Your task to perform on an android device: Google the capital of Mexico Image 0: 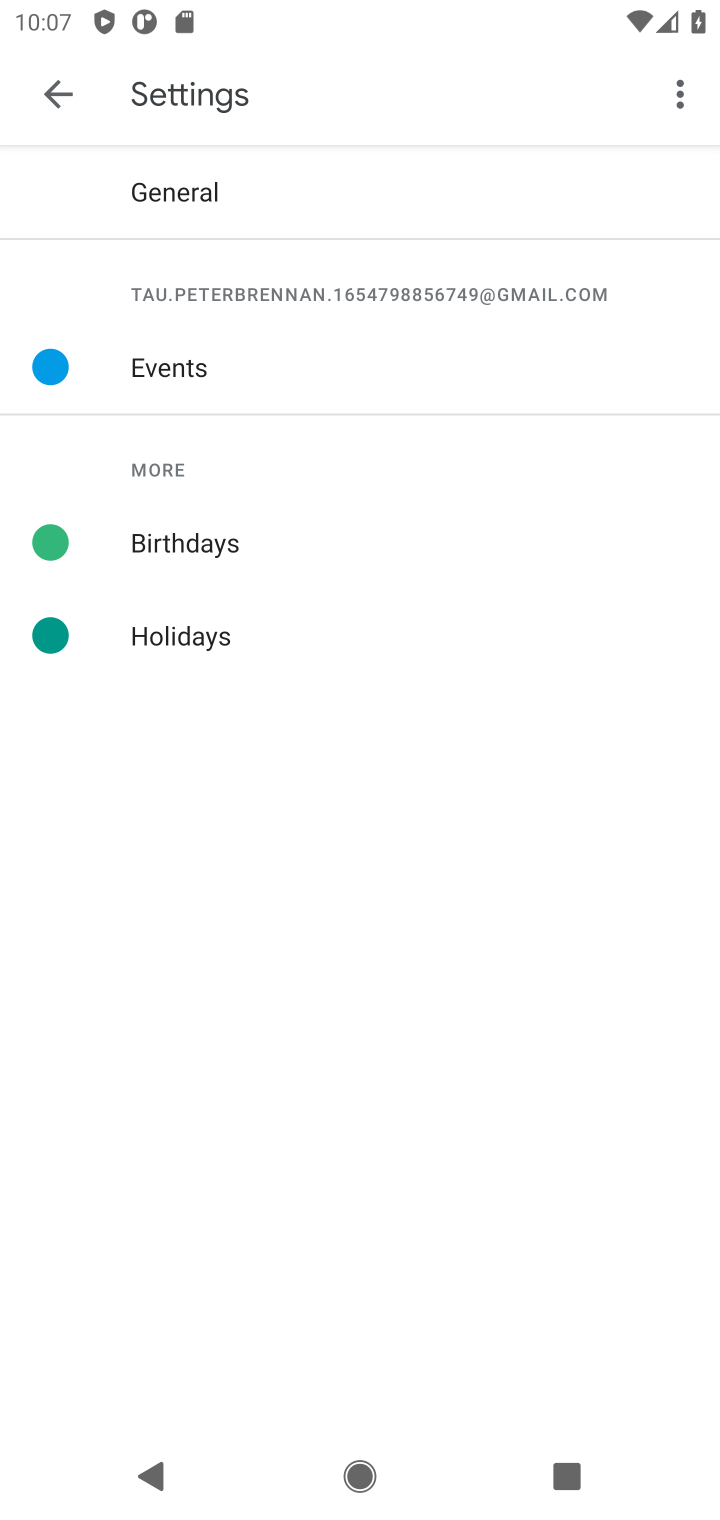
Step 0: press home button
Your task to perform on an android device: Google the capital of Mexico Image 1: 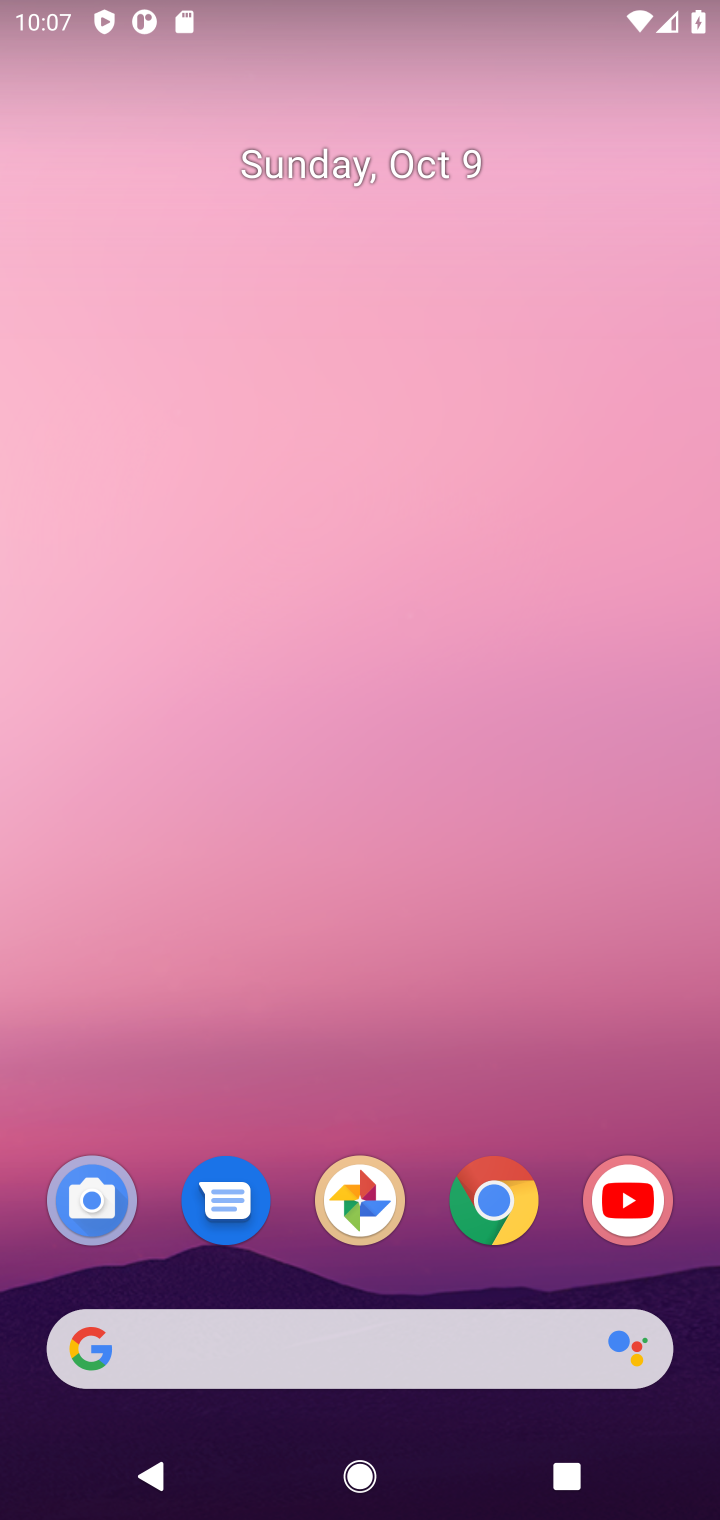
Step 1: click (506, 1180)
Your task to perform on an android device: Google the capital of Mexico Image 2: 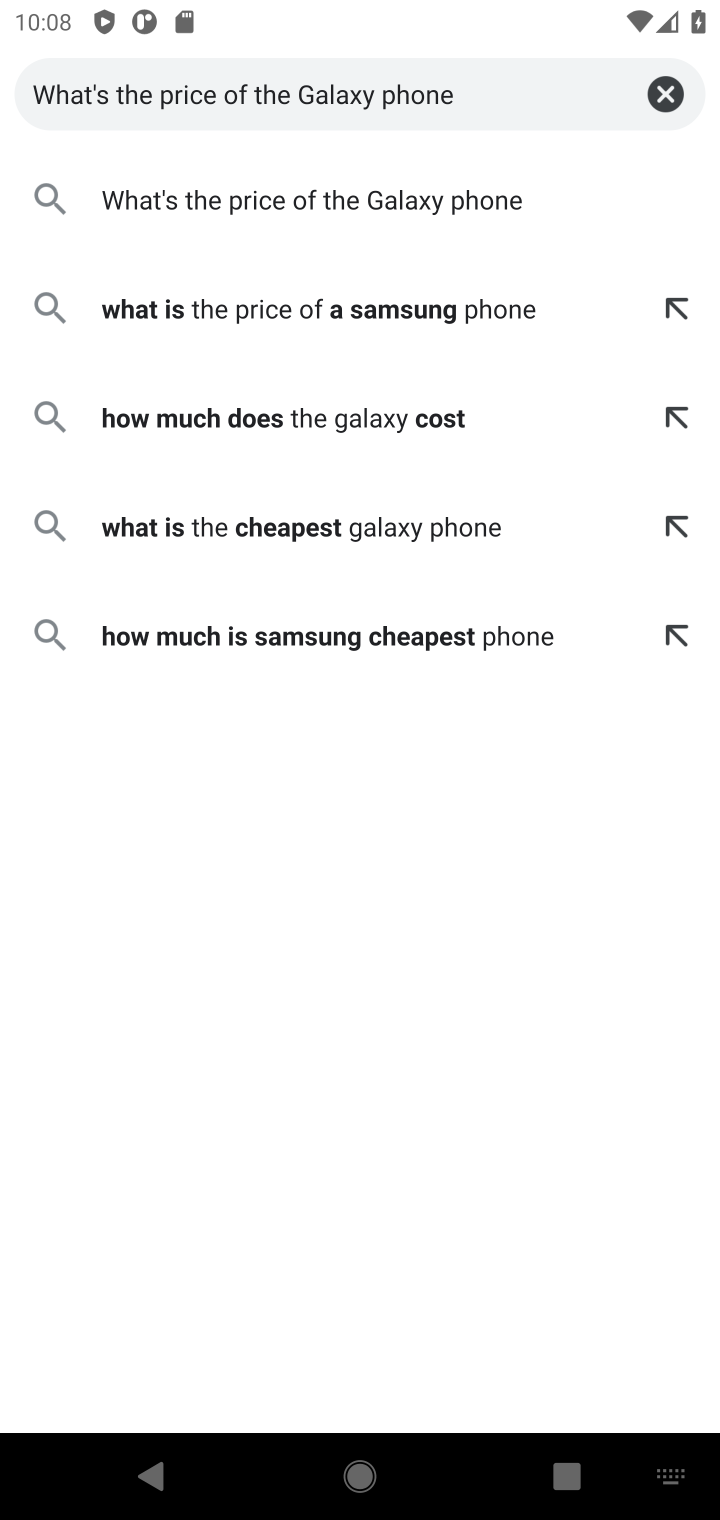
Step 2: click (655, 88)
Your task to perform on an android device: Google the capital of Mexico Image 3: 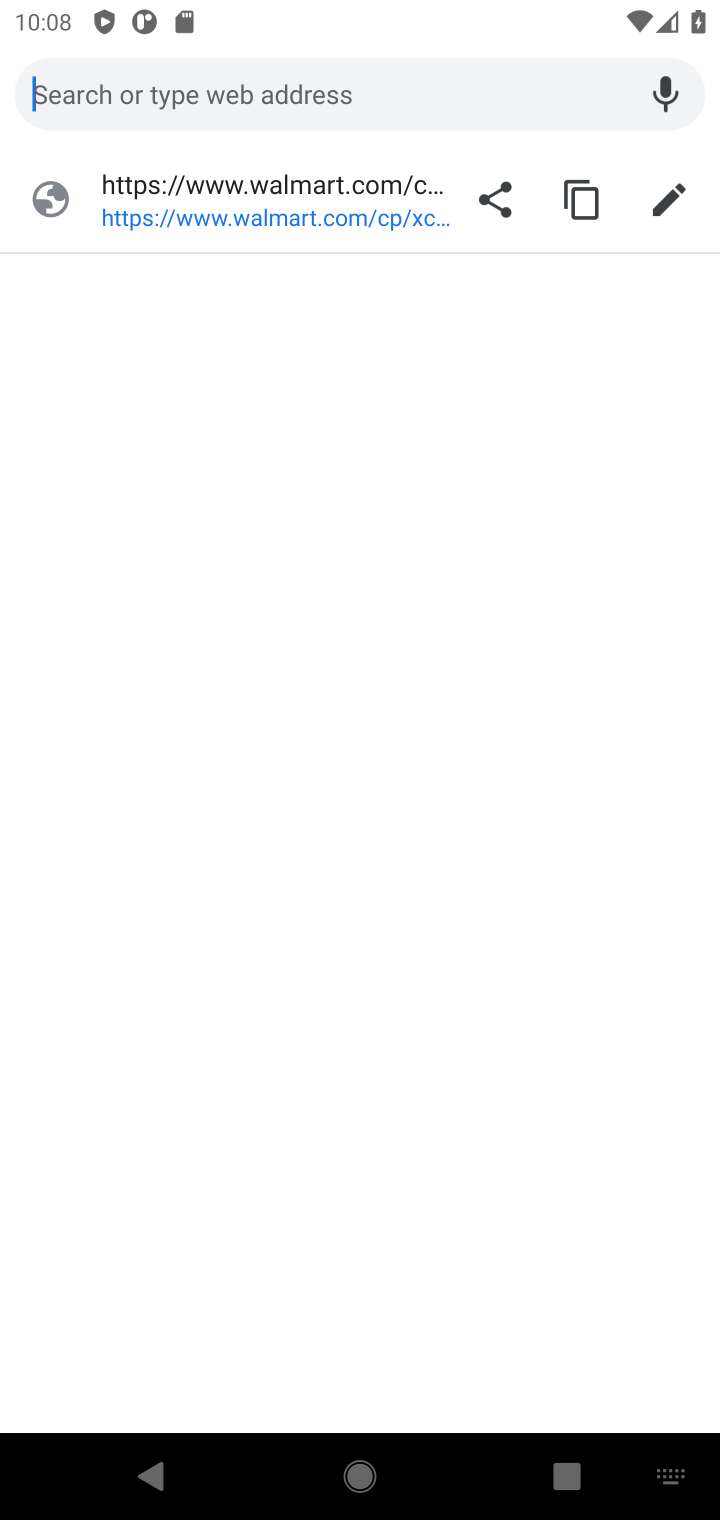
Step 3: type "google capital od mexico"
Your task to perform on an android device: Google the capital of Mexico Image 4: 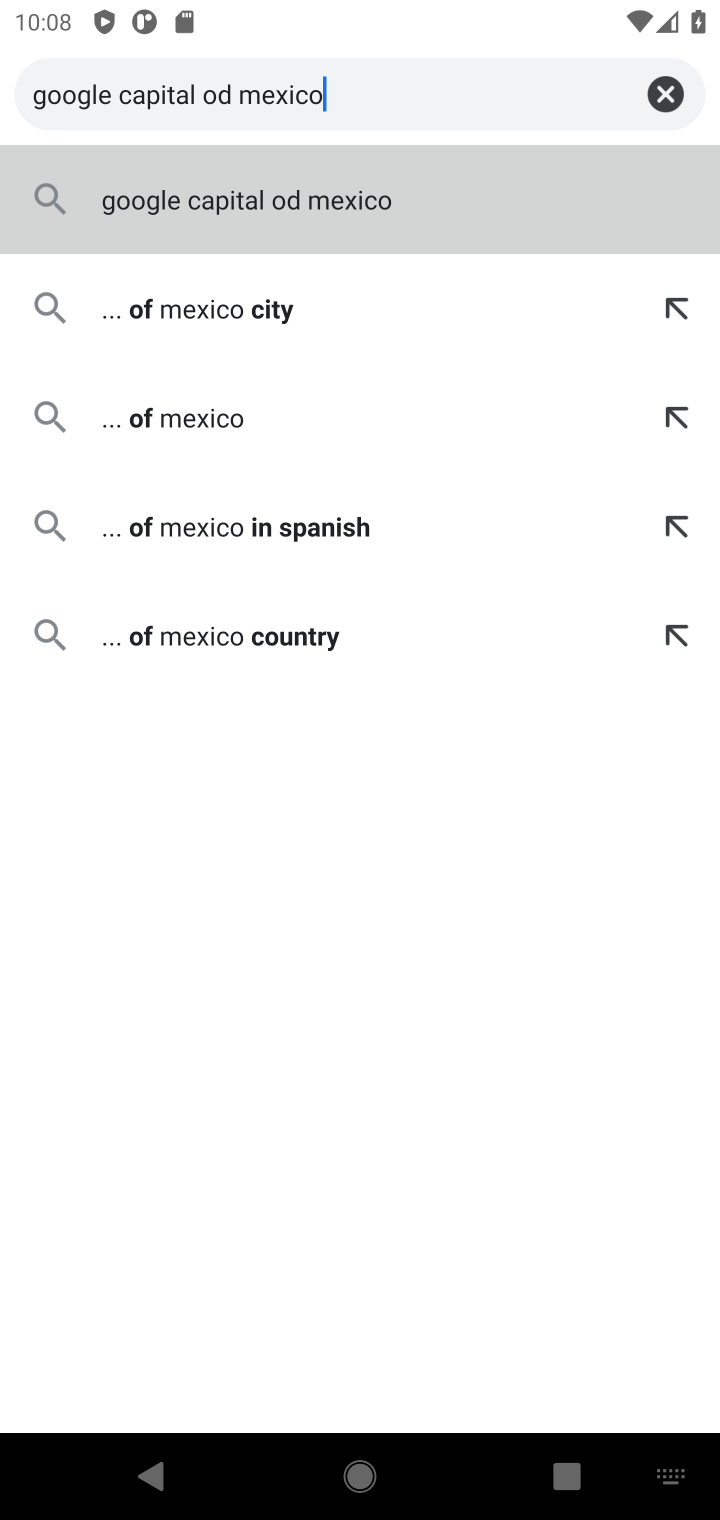
Step 4: click (384, 217)
Your task to perform on an android device: Google the capital of Mexico Image 5: 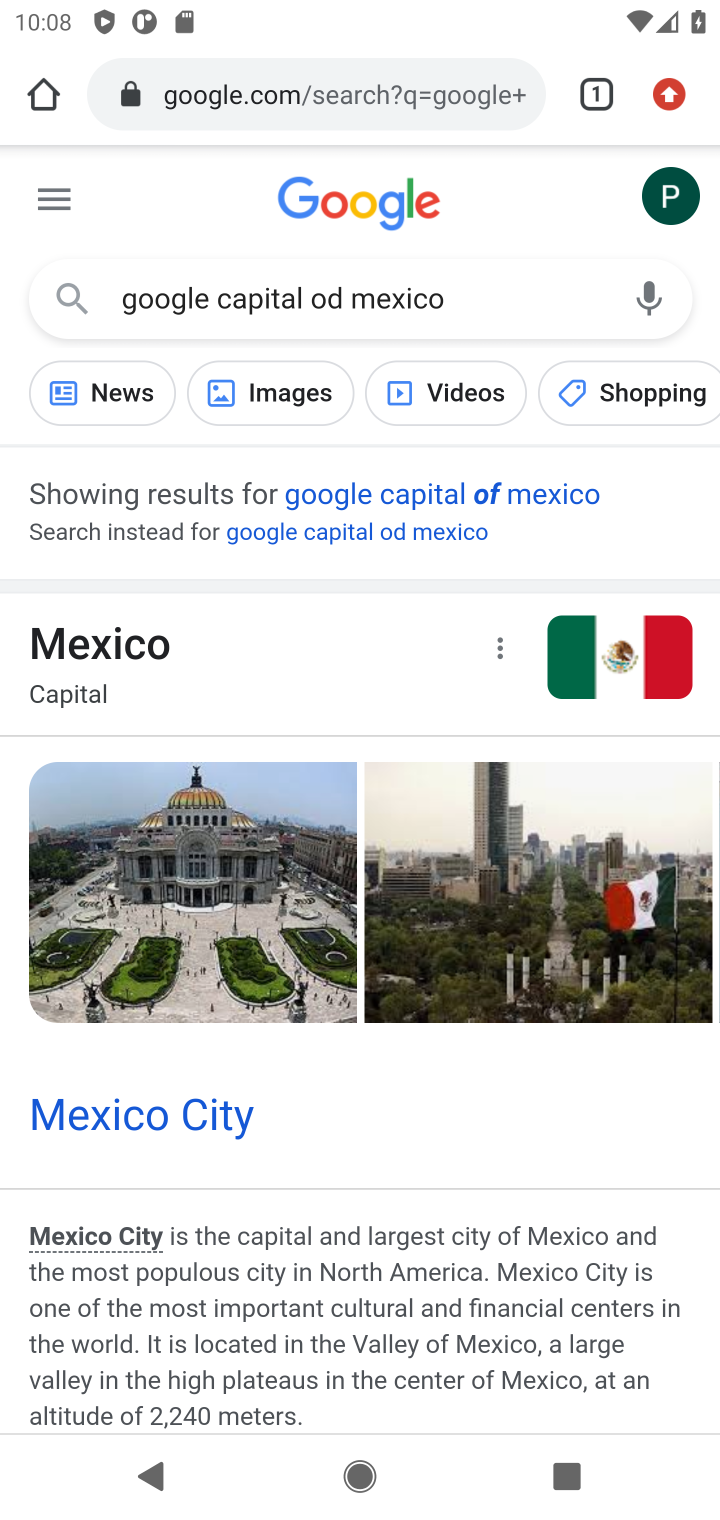
Step 5: task complete